Your task to perform on an android device: Go to ESPN.com Image 0: 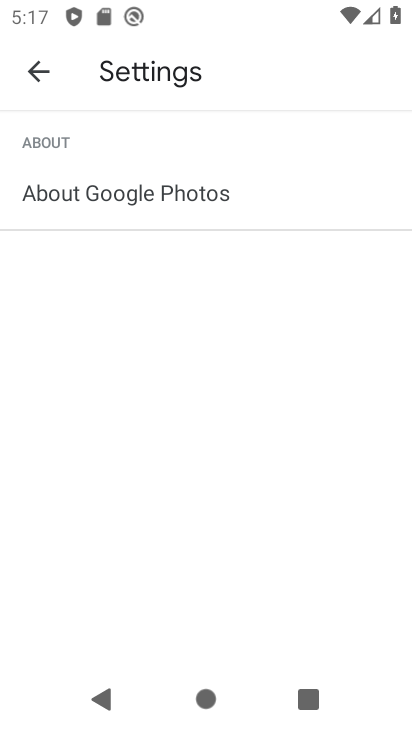
Step 0: press home button
Your task to perform on an android device: Go to ESPN.com Image 1: 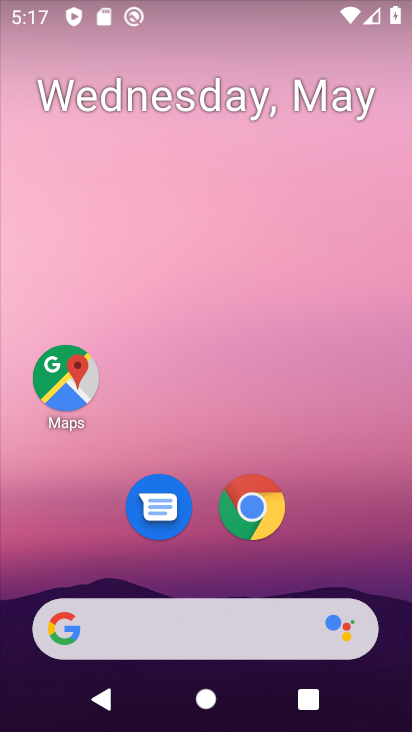
Step 1: click (250, 505)
Your task to perform on an android device: Go to ESPN.com Image 2: 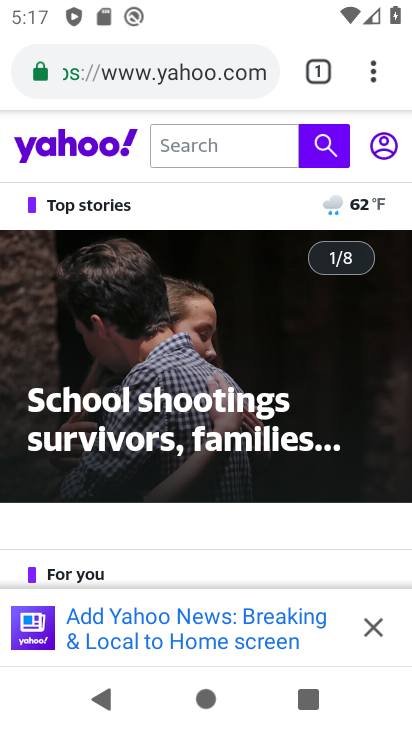
Step 2: click (215, 75)
Your task to perform on an android device: Go to ESPN.com Image 3: 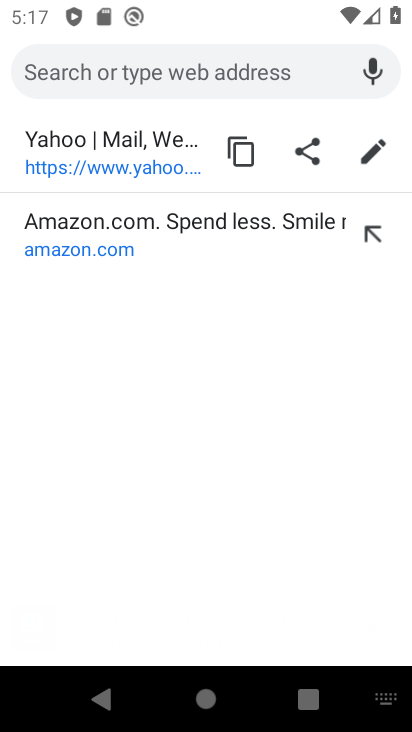
Step 3: type "ESPN.com"
Your task to perform on an android device: Go to ESPN.com Image 4: 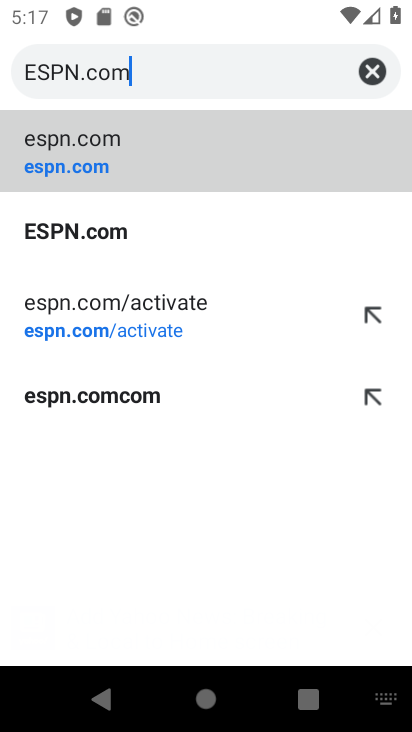
Step 4: click (100, 231)
Your task to perform on an android device: Go to ESPN.com Image 5: 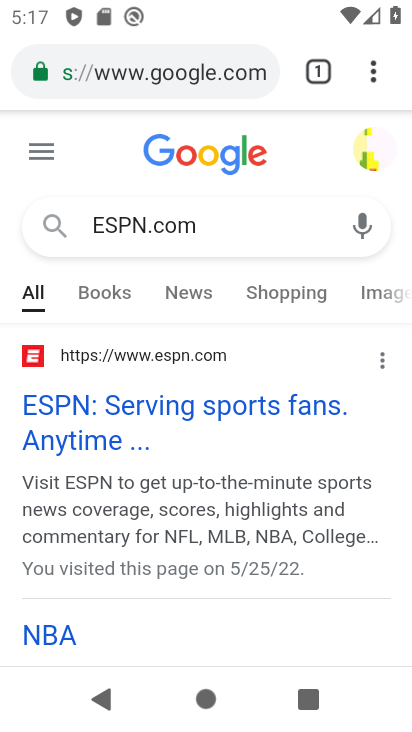
Step 5: click (58, 435)
Your task to perform on an android device: Go to ESPN.com Image 6: 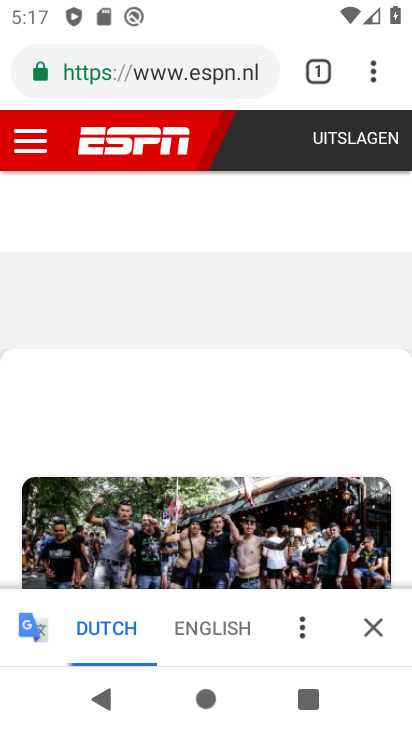
Step 6: task complete